Your task to perform on an android device: add a contact Image 0: 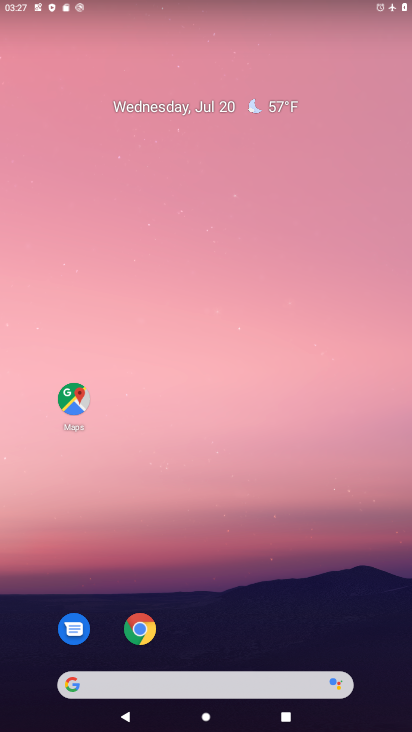
Step 0: drag from (367, 646) to (329, 73)
Your task to perform on an android device: add a contact Image 1: 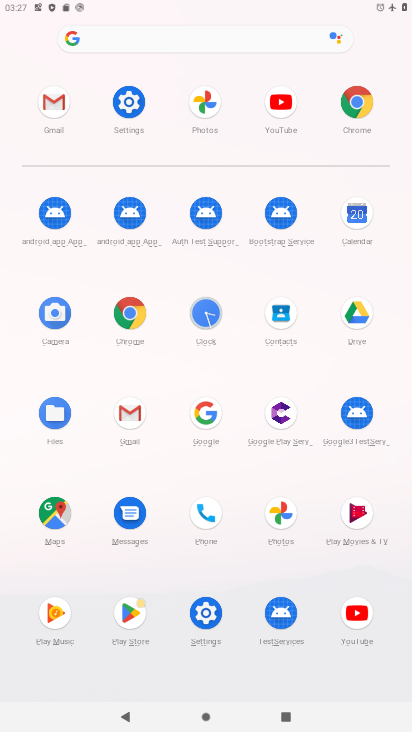
Step 1: click (281, 313)
Your task to perform on an android device: add a contact Image 2: 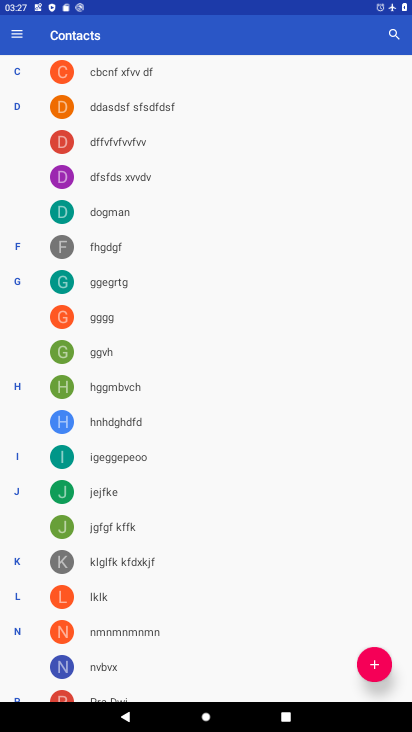
Step 2: click (374, 660)
Your task to perform on an android device: add a contact Image 3: 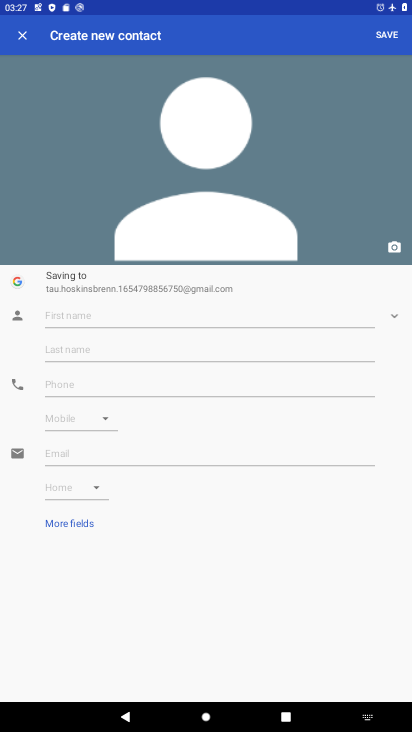
Step 3: click (106, 323)
Your task to perform on an android device: add a contact Image 4: 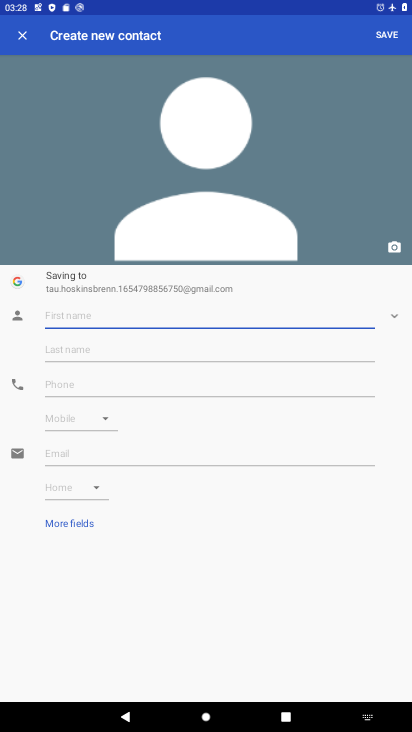
Step 4: type "fasddjfrrri"
Your task to perform on an android device: add a contact Image 5: 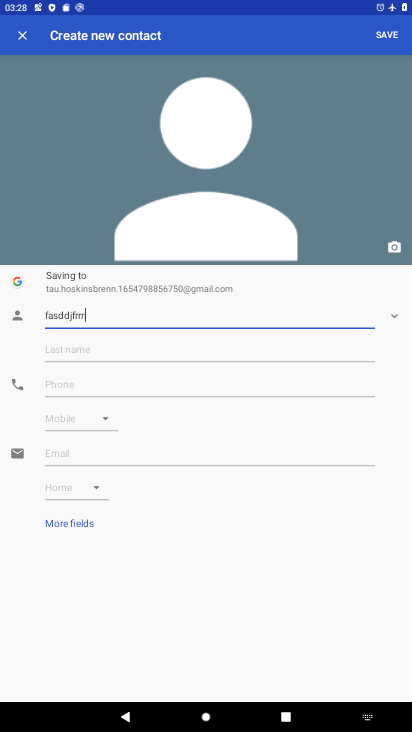
Step 5: click (75, 376)
Your task to perform on an android device: add a contact Image 6: 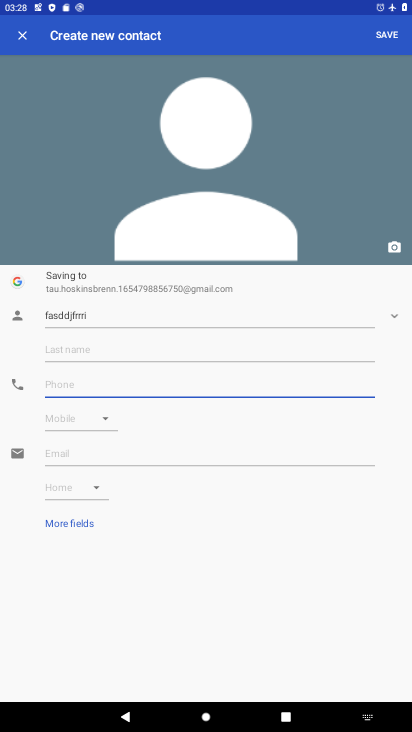
Step 6: type "-65966-5-0"
Your task to perform on an android device: add a contact Image 7: 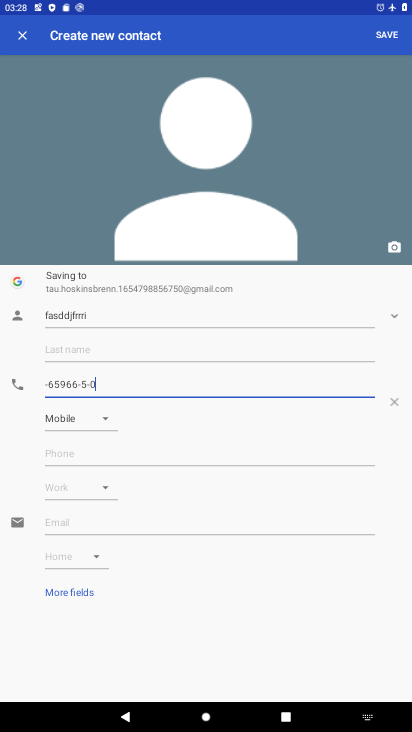
Step 7: click (383, 35)
Your task to perform on an android device: add a contact Image 8: 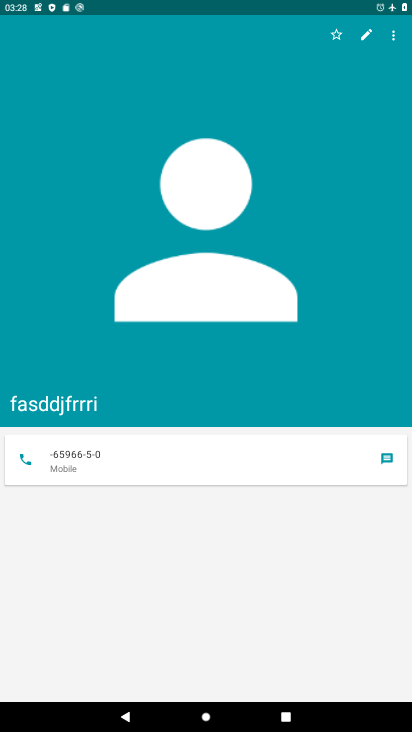
Step 8: task complete